Your task to perform on an android device: change text size in settings app Image 0: 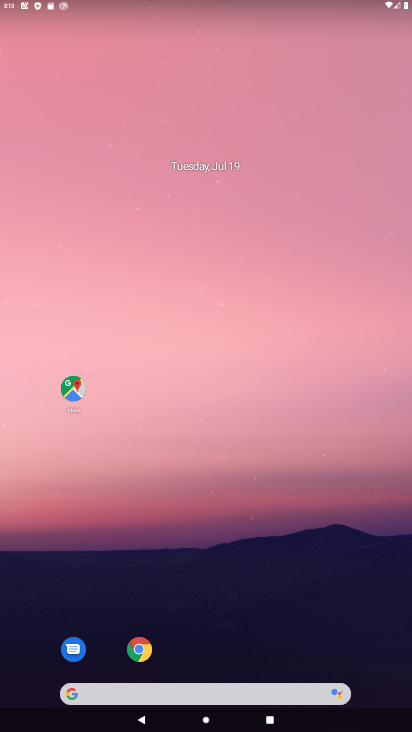
Step 0: press home button
Your task to perform on an android device: change text size in settings app Image 1: 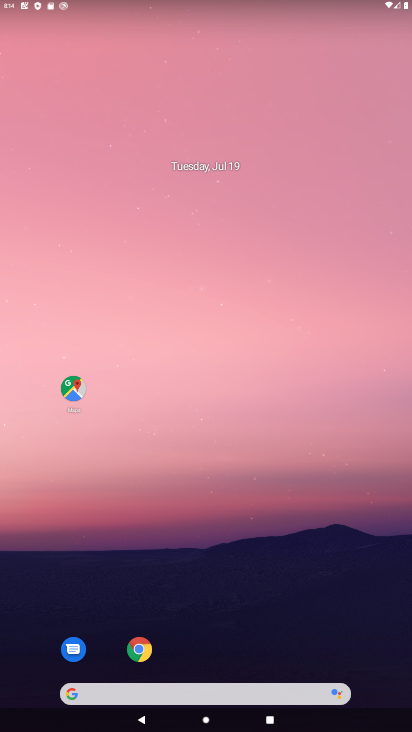
Step 1: drag from (203, 659) to (268, 11)
Your task to perform on an android device: change text size in settings app Image 2: 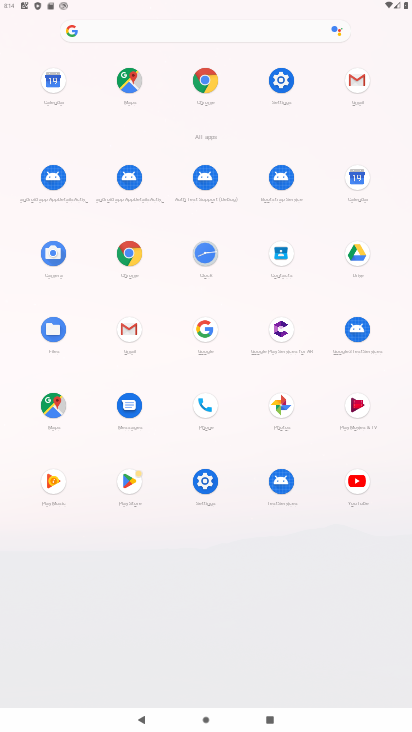
Step 2: click (204, 479)
Your task to perform on an android device: change text size in settings app Image 3: 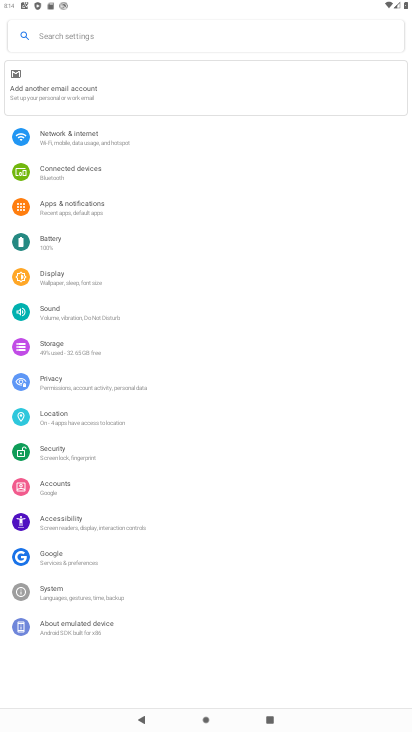
Step 3: click (67, 273)
Your task to perform on an android device: change text size in settings app Image 4: 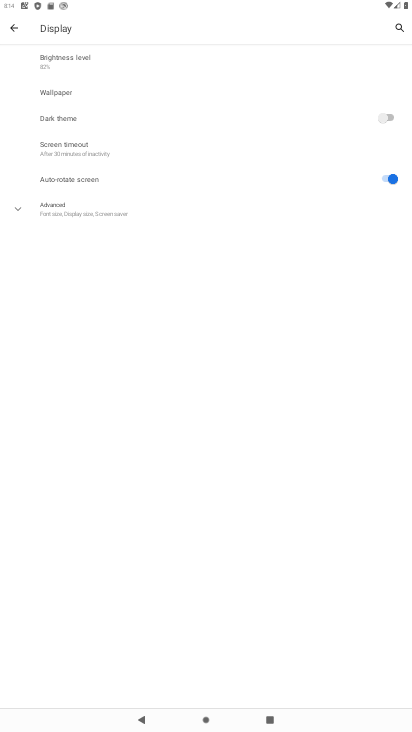
Step 4: click (30, 207)
Your task to perform on an android device: change text size in settings app Image 5: 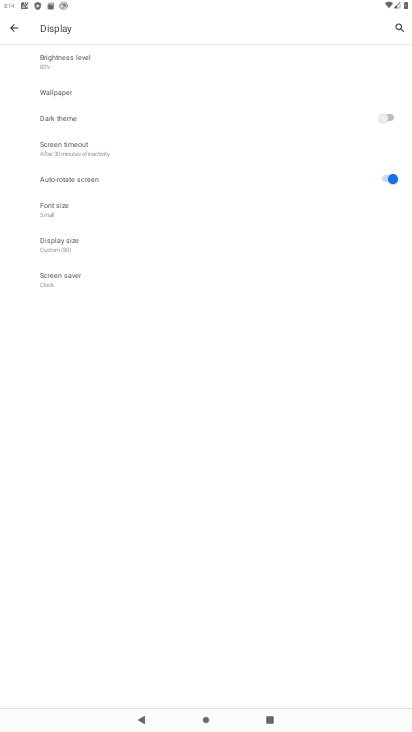
Step 5: click (57, 210)
Your task to perform on an android device: change text size in settings app Image 6: 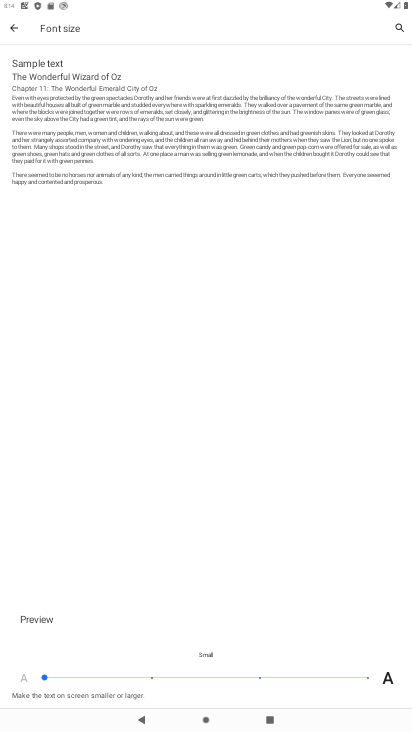
Step 6: click (365, 676)
Your task to perform on an android device: change text size in settings app Image 7: 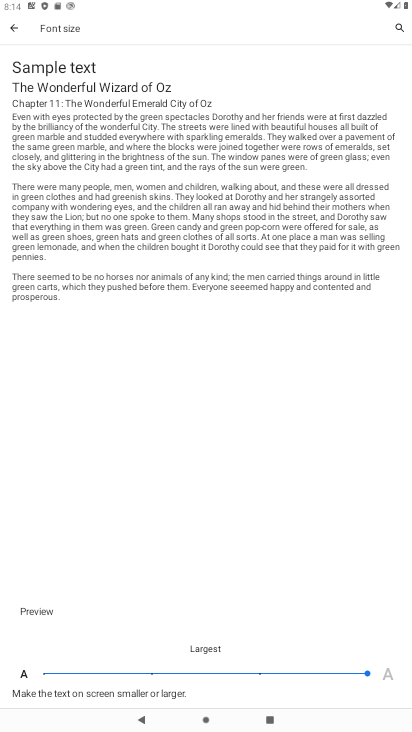
Step 7: click (366, 676)
Your task to perform on an android device: change text size in settings app Image 8: 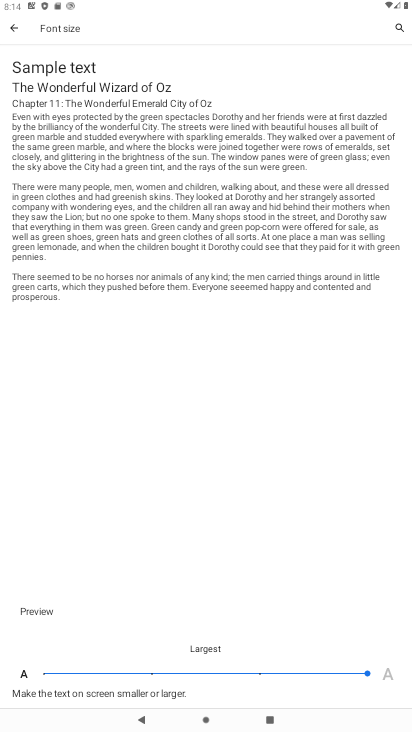
Step 8: task complete